Your task to perform on an android device: When is my next appointment? Image 0: 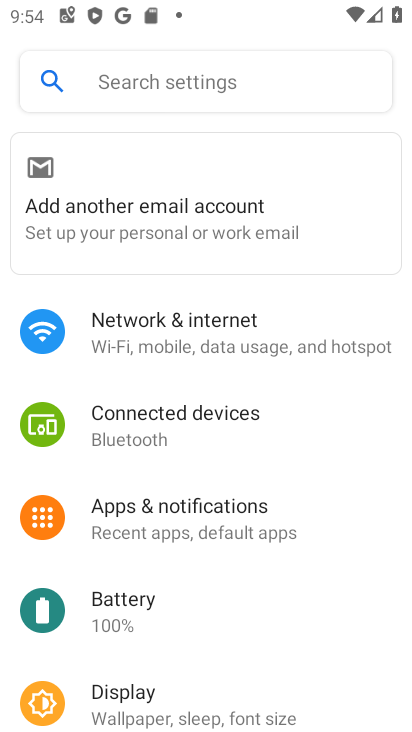
Step 0: press home button
Your task to perform on an android device: When is my next appointment? Image 1: 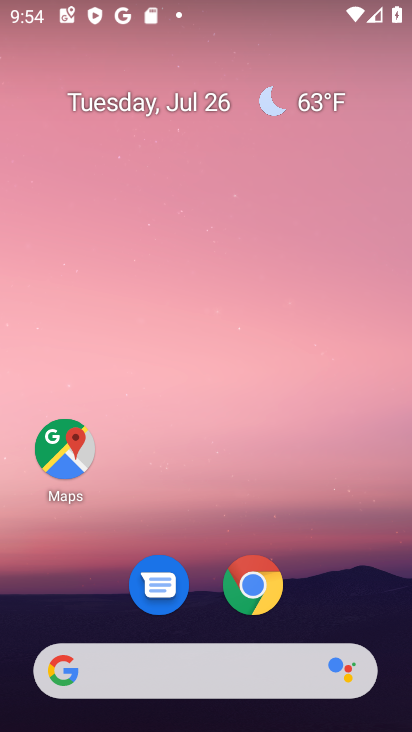
Step 1: drag from (247, 532) to (205, 69)
Your task to perform on an android device: When is my next appointment? Image 2: 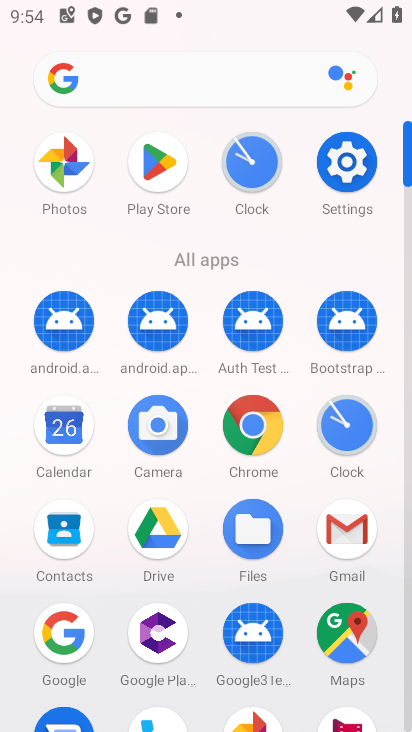
Step 2: click (59, 431)
Your task to perform on an android device: When is my next appointment? Image 3: 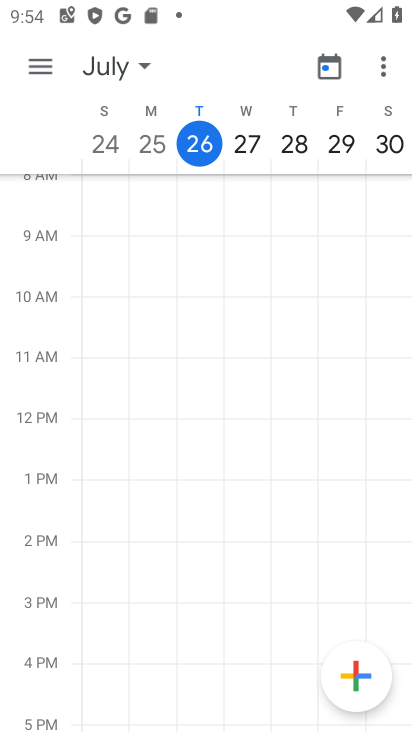
Step 3: click (196, 149)
Your task to perform on an android device: When is my next appointment? Image 4: 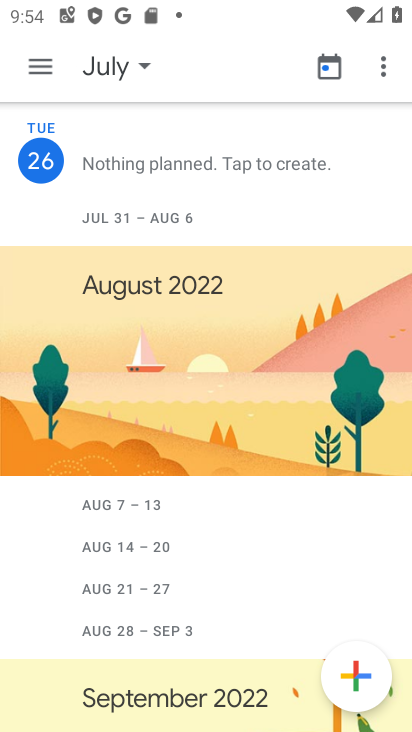
Step 4: click (46, 165)
Your task to perform on an android device: When is my next appointment? Image 5: 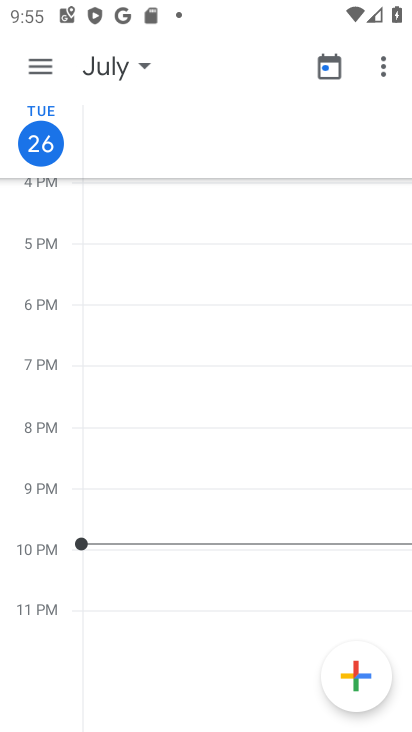
Step 5: task complete